Your task to perform on an android device: turn on the 12-hour format for clock Image 0: 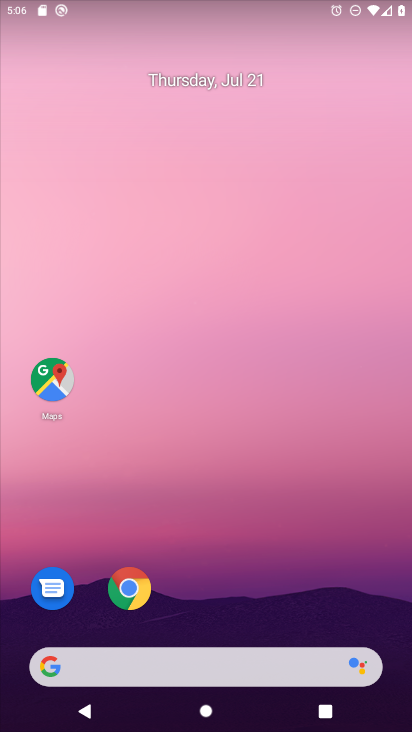
Step 0: drag from (302, 622) to (225, 171)
Your task to perform on an android device: turn on the 12-hour format for clock Image 1: 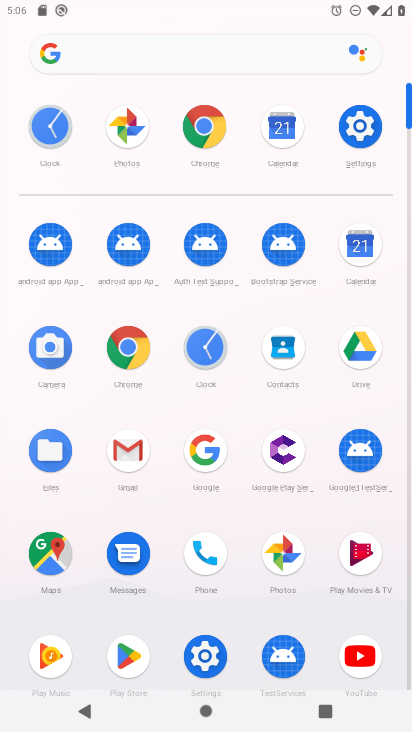
Step 1: click (35, 127)
Your task to perform on an android device: turn on the 12-hour format for clock Image 2: 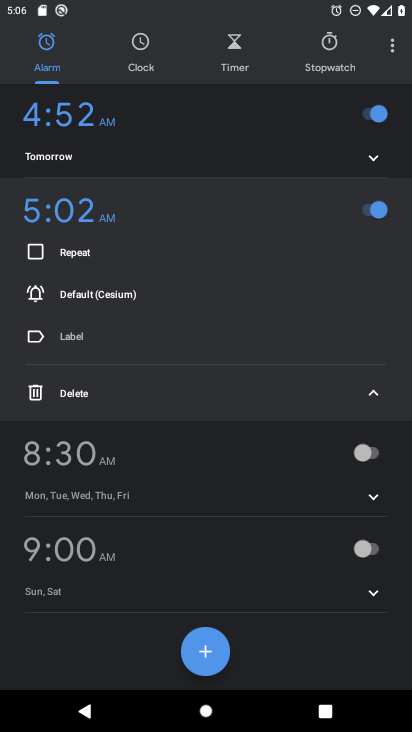
Step 2: click (385, 51)
Your task to perform on an android device: turn on the 12-hour format for clock Image 3: 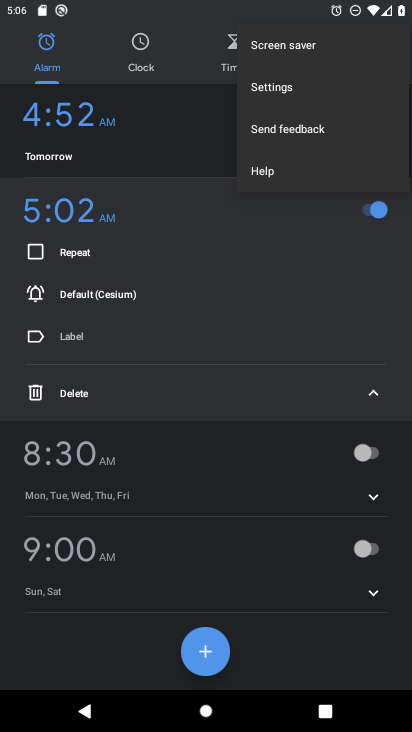
Step 3: click (336, 94)
Your task to perform on an android device: turn on the 12-hour format for clock Image 4: 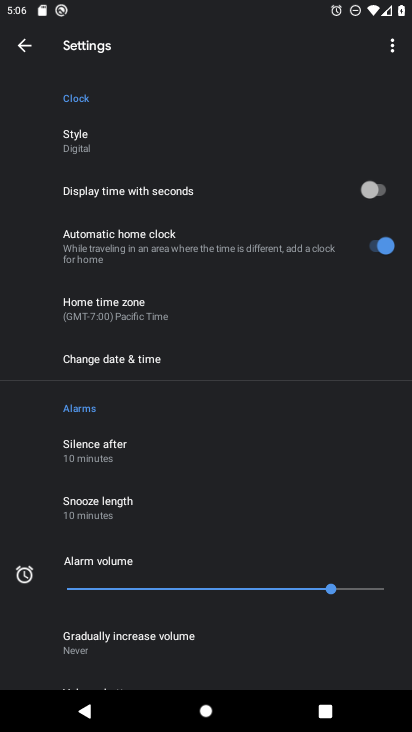
Step 4: drag from (287, 547) to (263, 385)
Your task to perform on an android device: turn on the 12-hour format for clock Image 5: 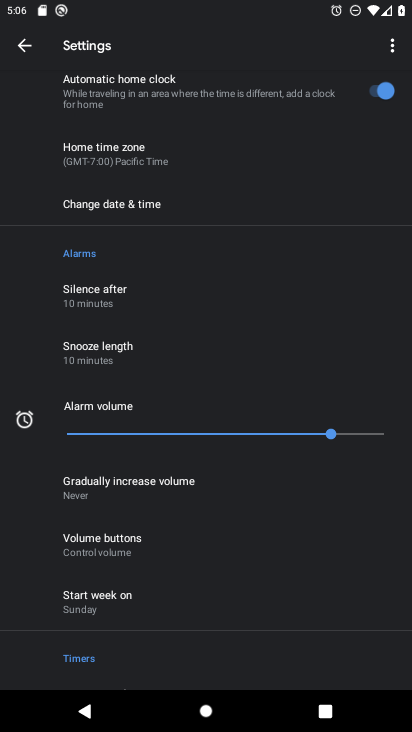
Step 5: click (234, 210)
Your task to perform on an android device: turn on the 12-hour format for clock Image 6: 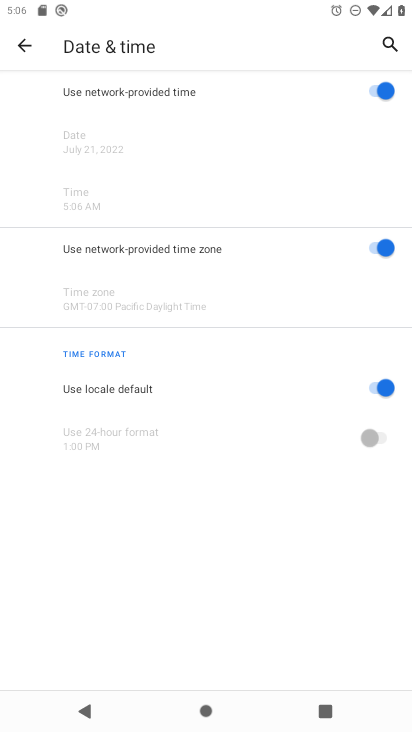
Step 6: task complete